Your task to perform on an android device: Is it going to rain tomorrow? Image 0: 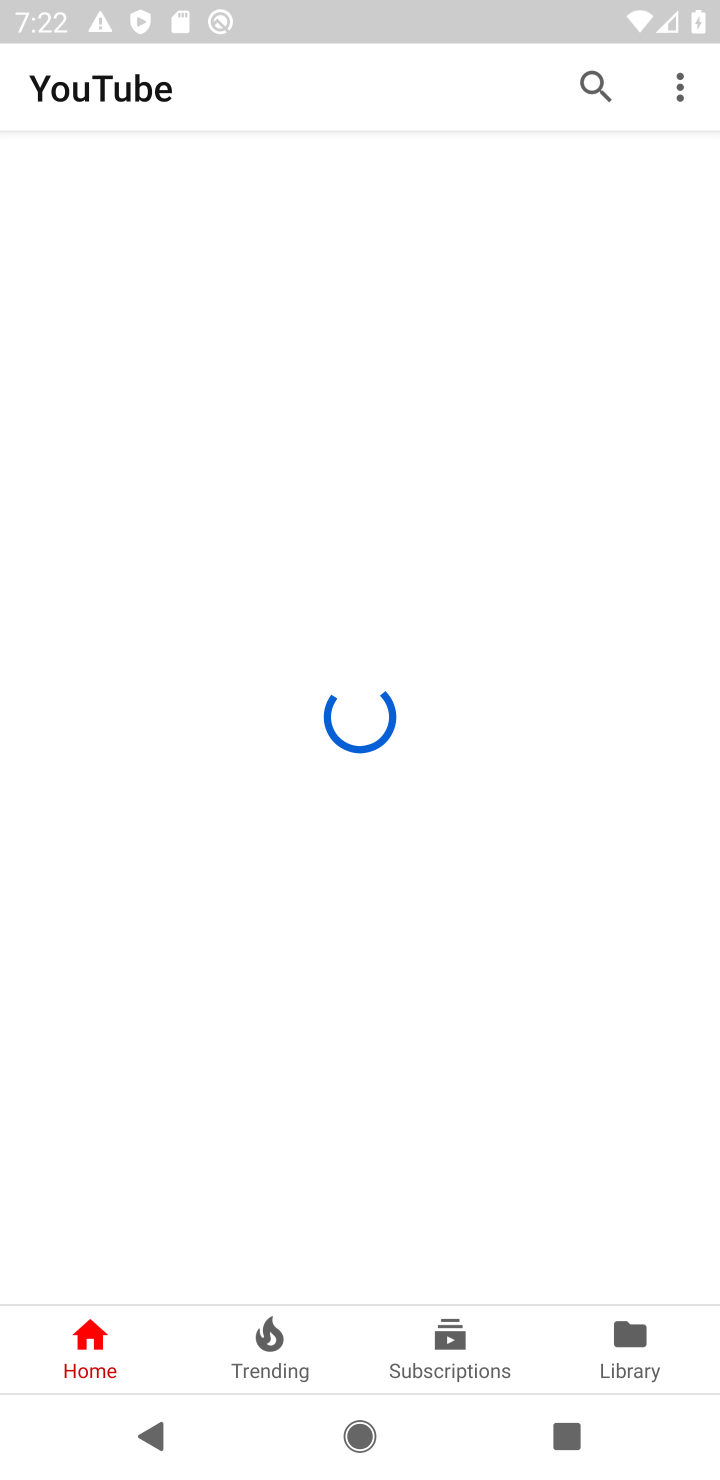
Step 0: press home button
Your task to perform on an android device: Is it going to rain tomorrow? Image 1: 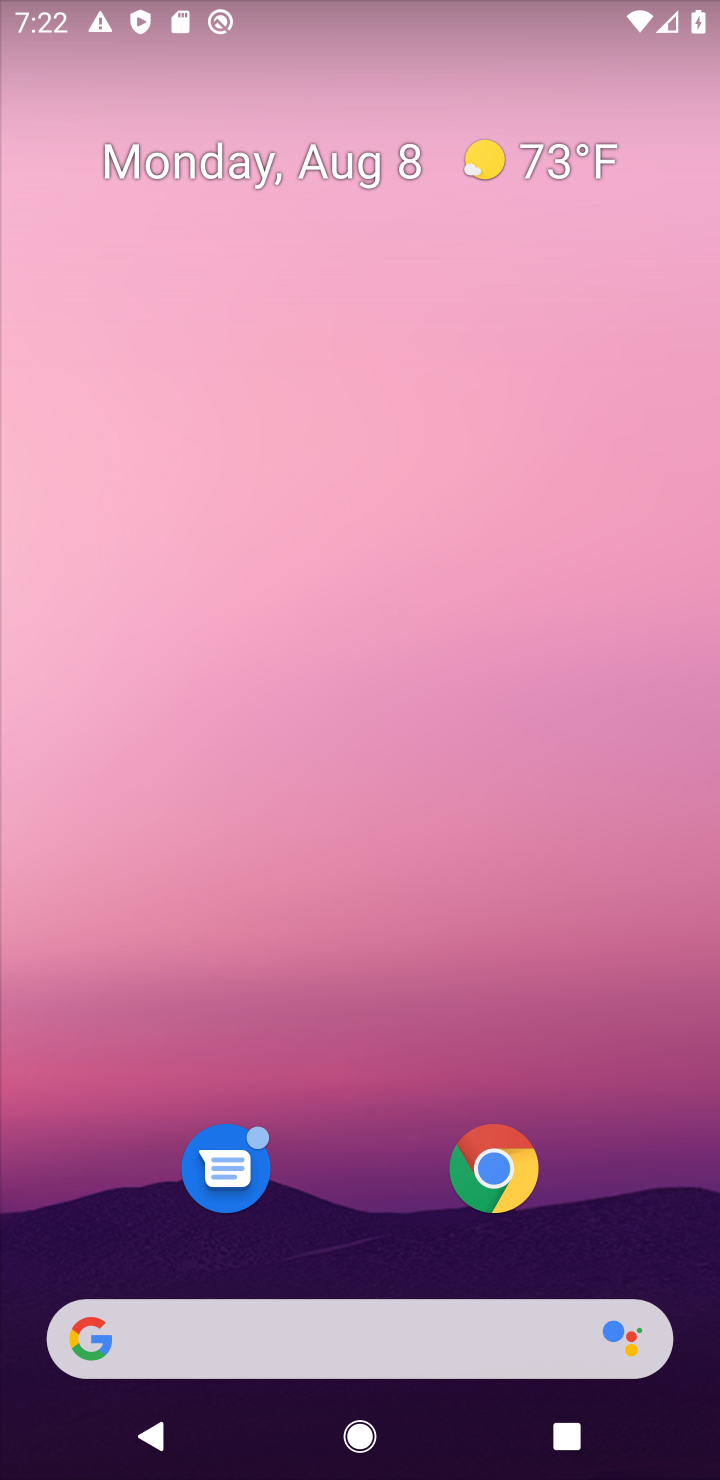
Step 1: click (227, 1327)
Your task to perform on an android device: Is it going to rain tomorrow? Image 2: 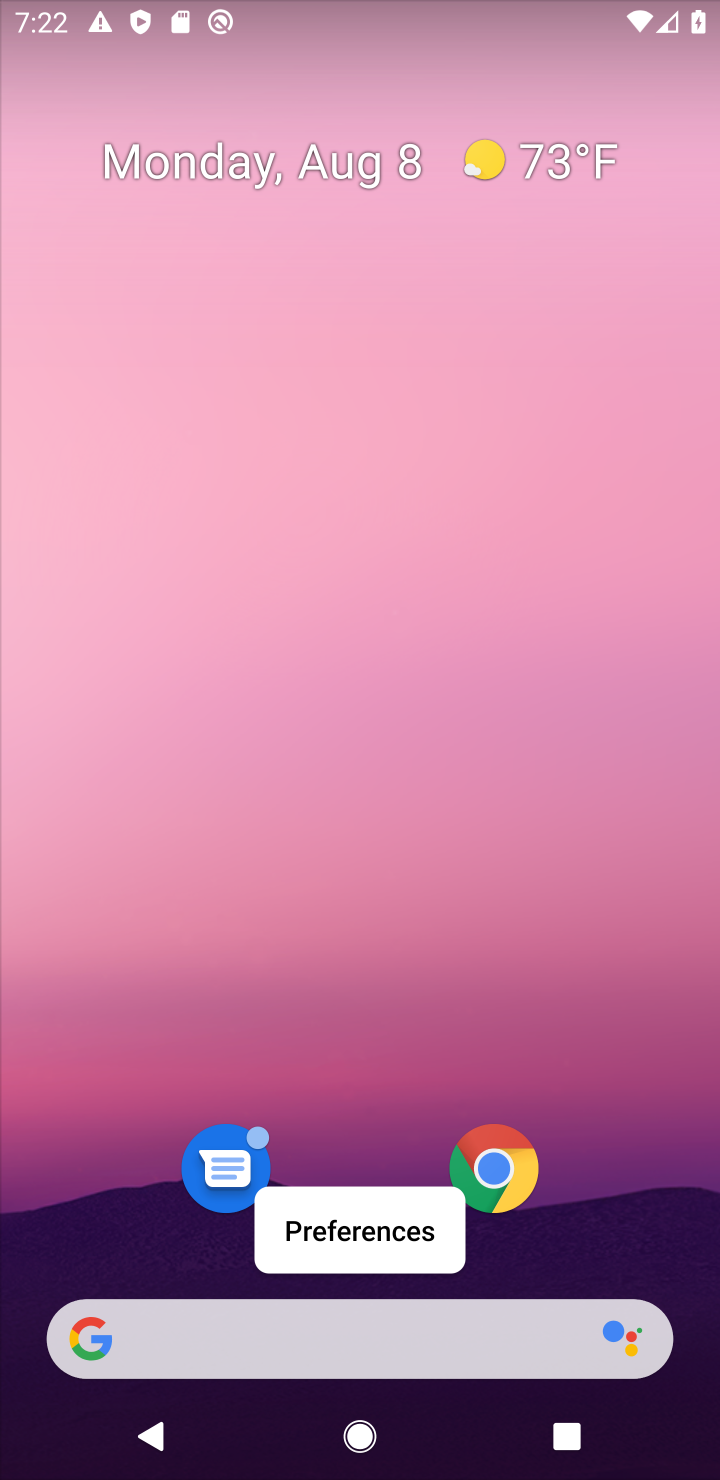
Step 2: click (242, 1327)
Your task to perform on an android device: Is it going to rain tomorrow? Image 3: 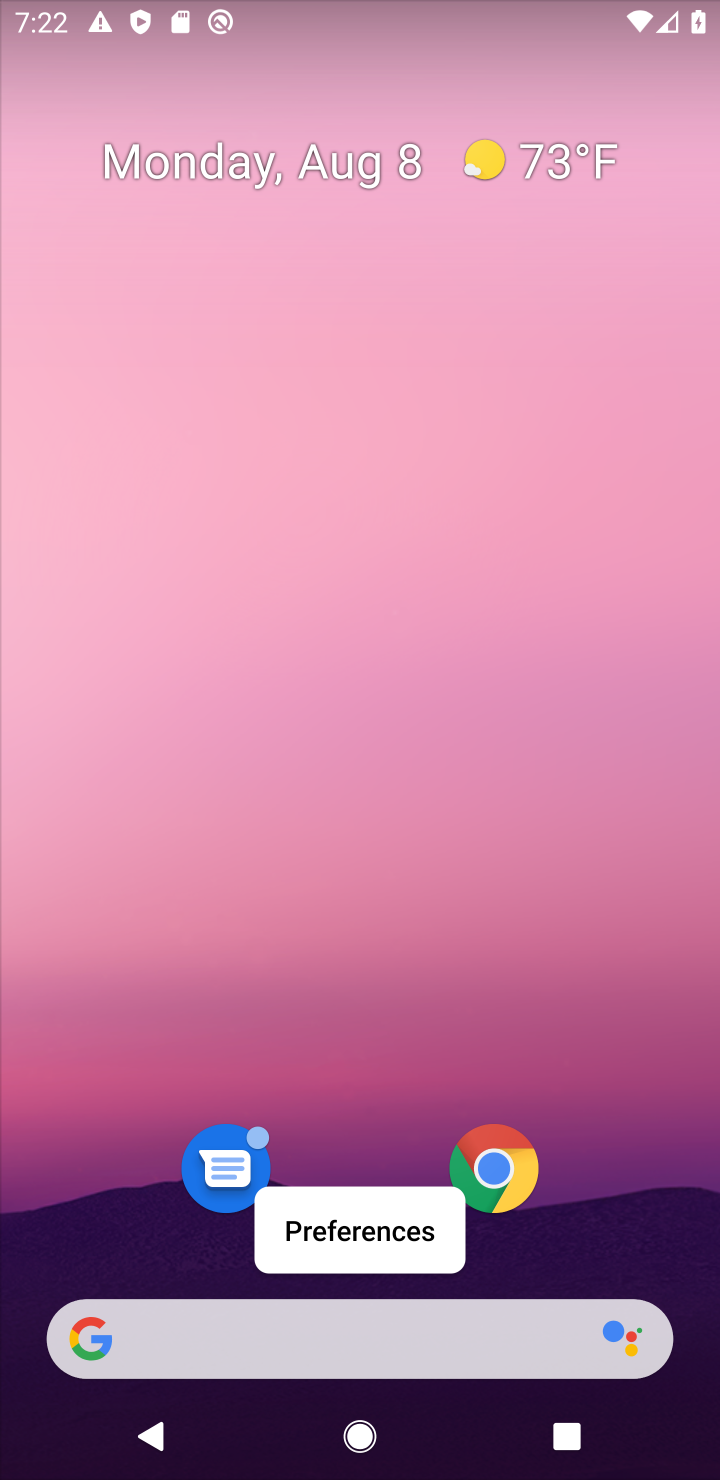
Step 3: click (240, 1334)
Your task to perform on an android device: Is it going to rain tomorrow? Image 4: 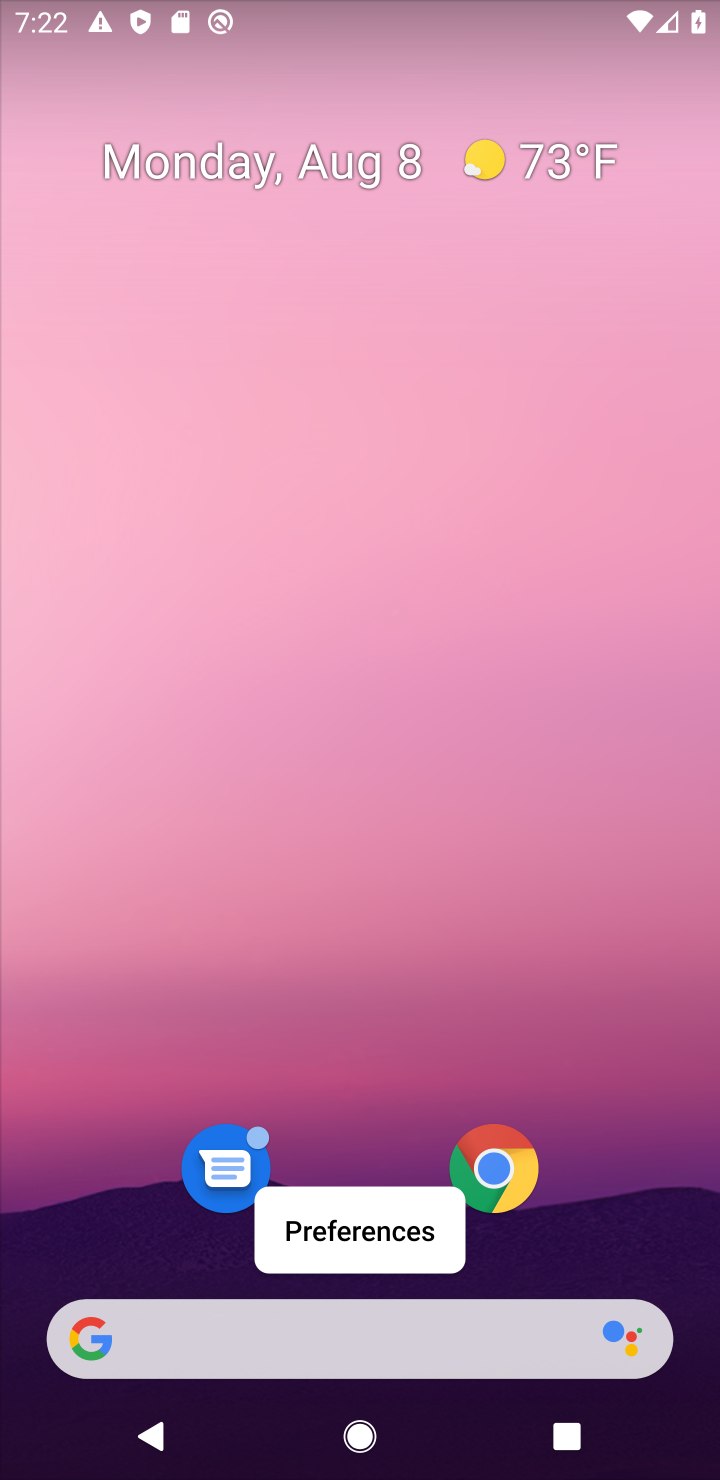
Step 4: click (220, 1317)
Your task to perform on an android device: Is it going to rain tomorrow? Image 5: 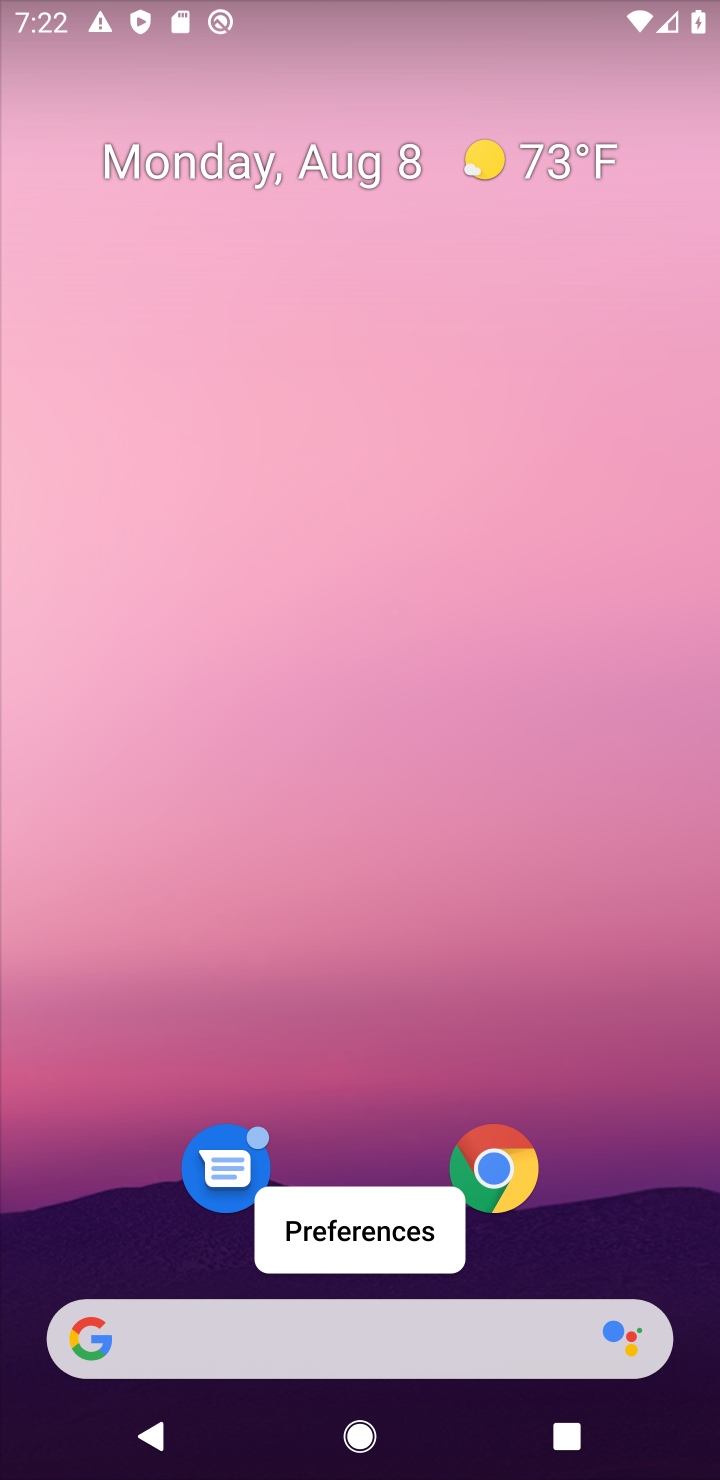
Step 5: click (268, 1346)
Your task to perform on an android device: Is it going to rain tomorrow? Image 6: 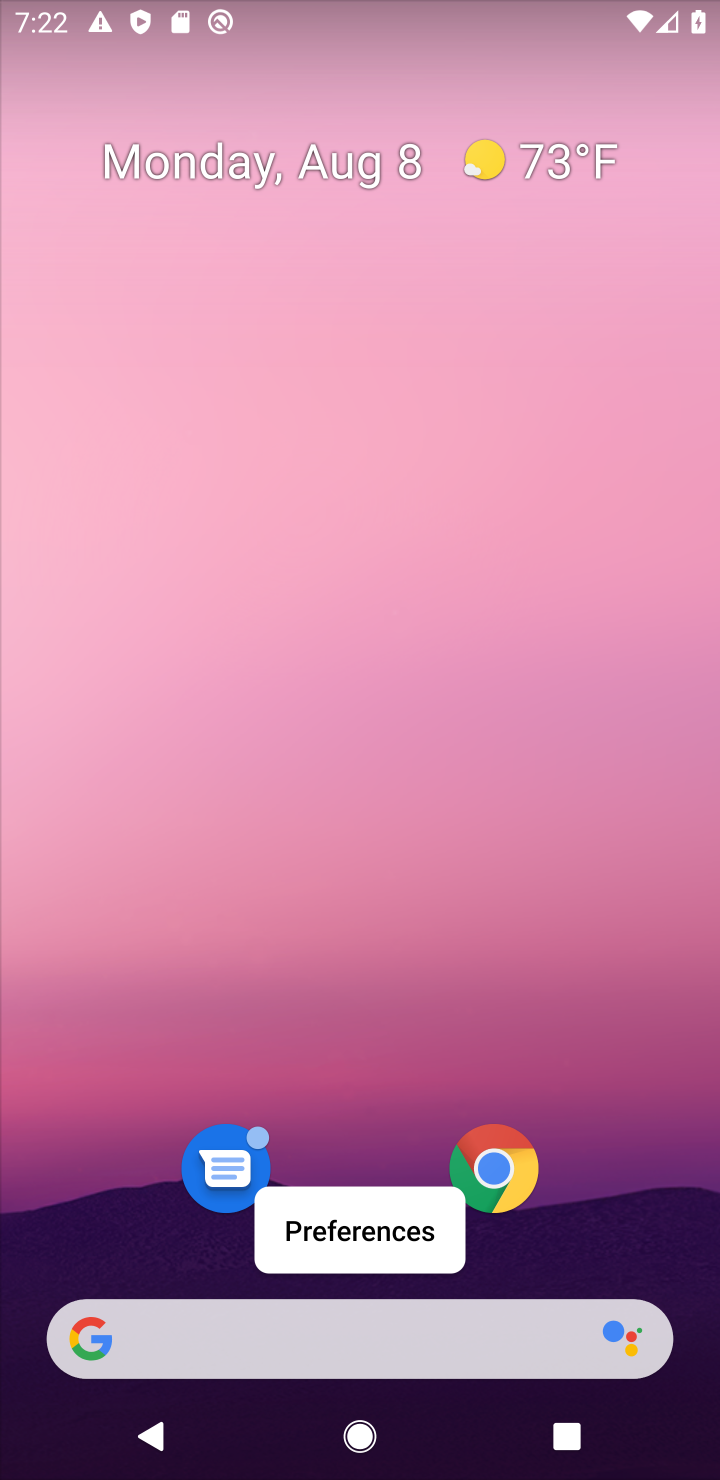
Step 6: click (323, 1343)
Your task to perform on an android device: Is it going to rain tomorrow? Image 7: 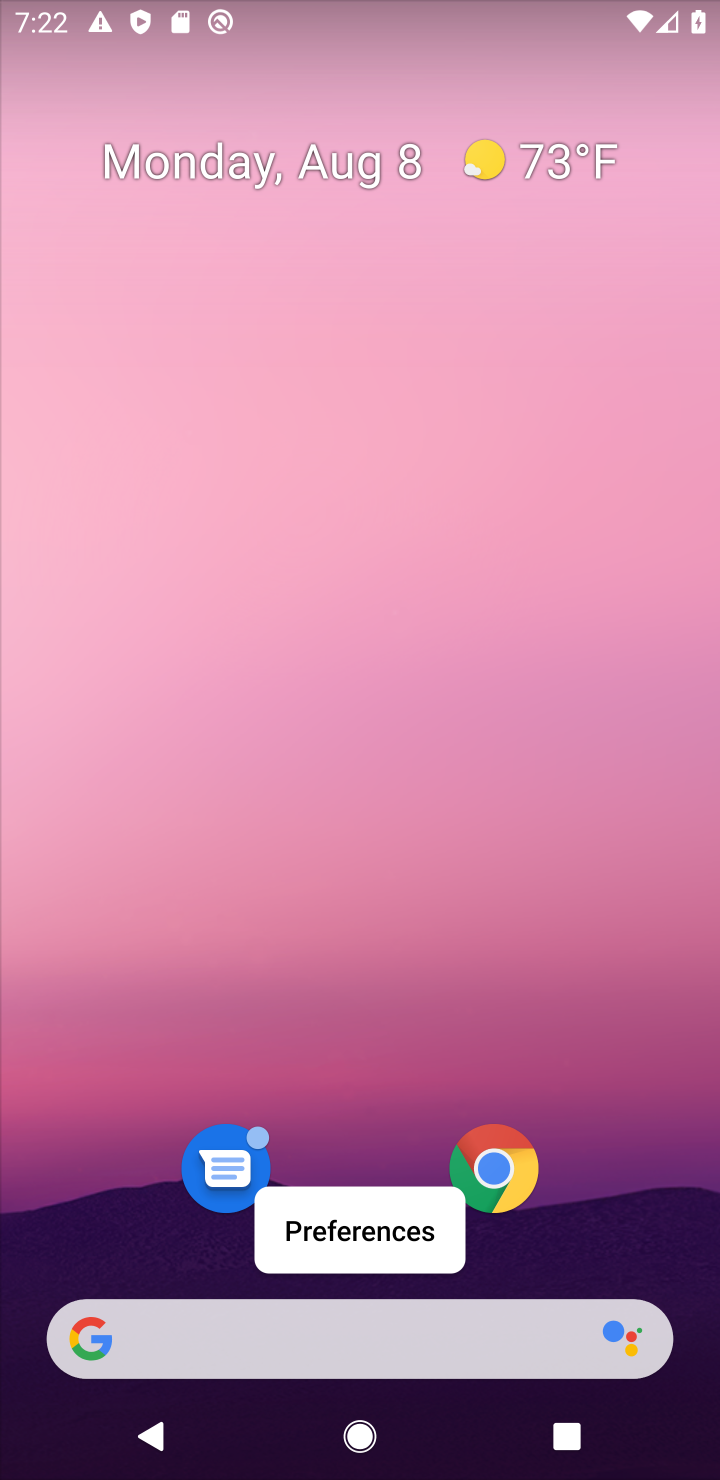
Step 7: click (210, 1340)
Your task to perform on an android device: Is it going to rain tomorrow? Image 8: 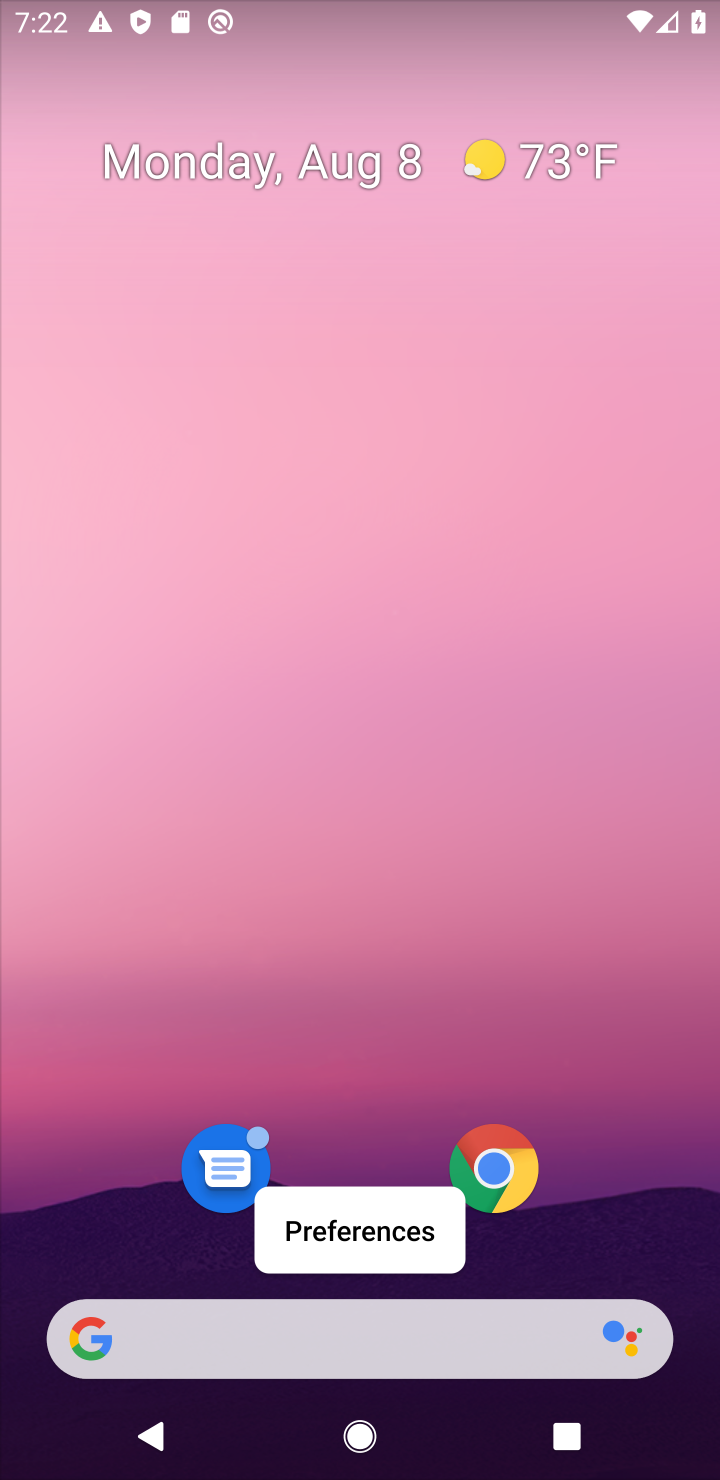
Step 8: click (210, 1340)
Your task to perform on an android device: Is it going to rain tomorrow? Image 9: 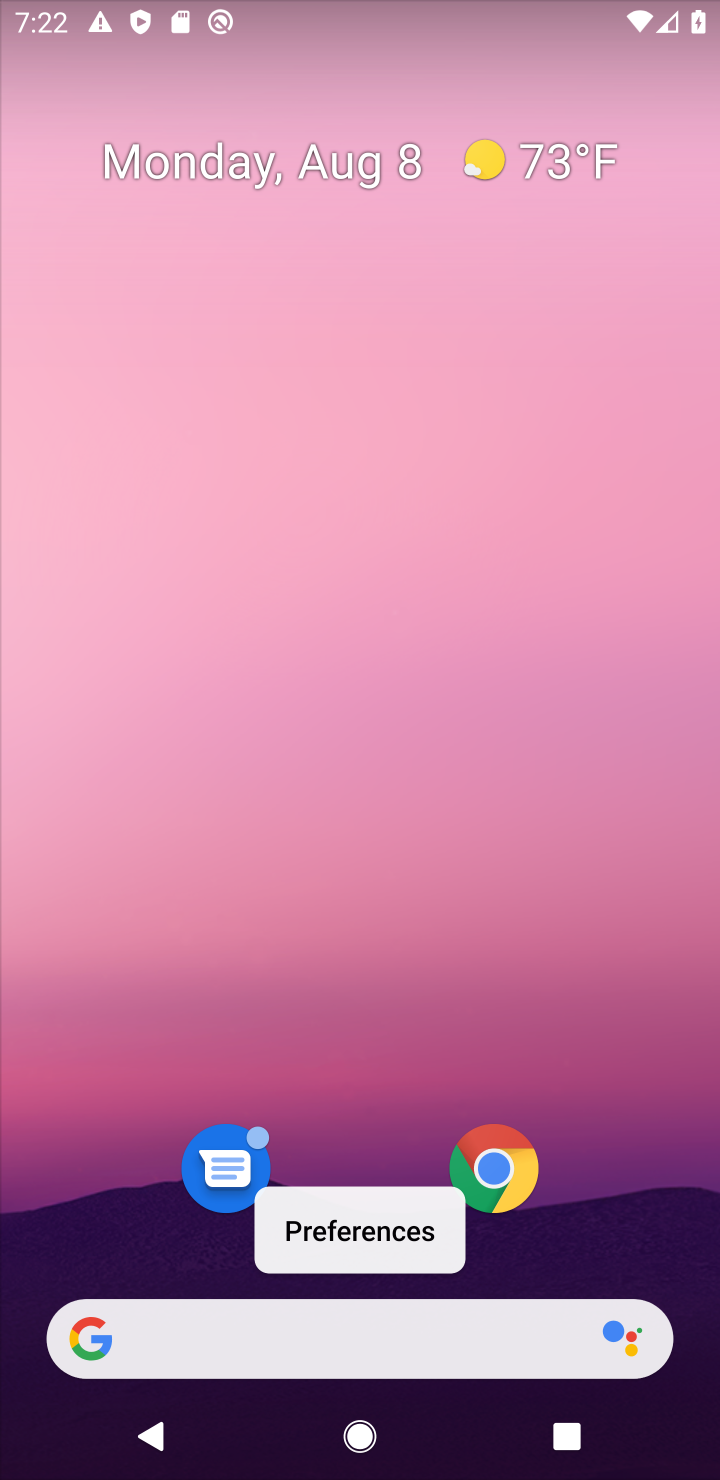
Step 9: click (256, 1341)
Your task to perform on an android device: Is it going to rain tomorrow? Image 10: 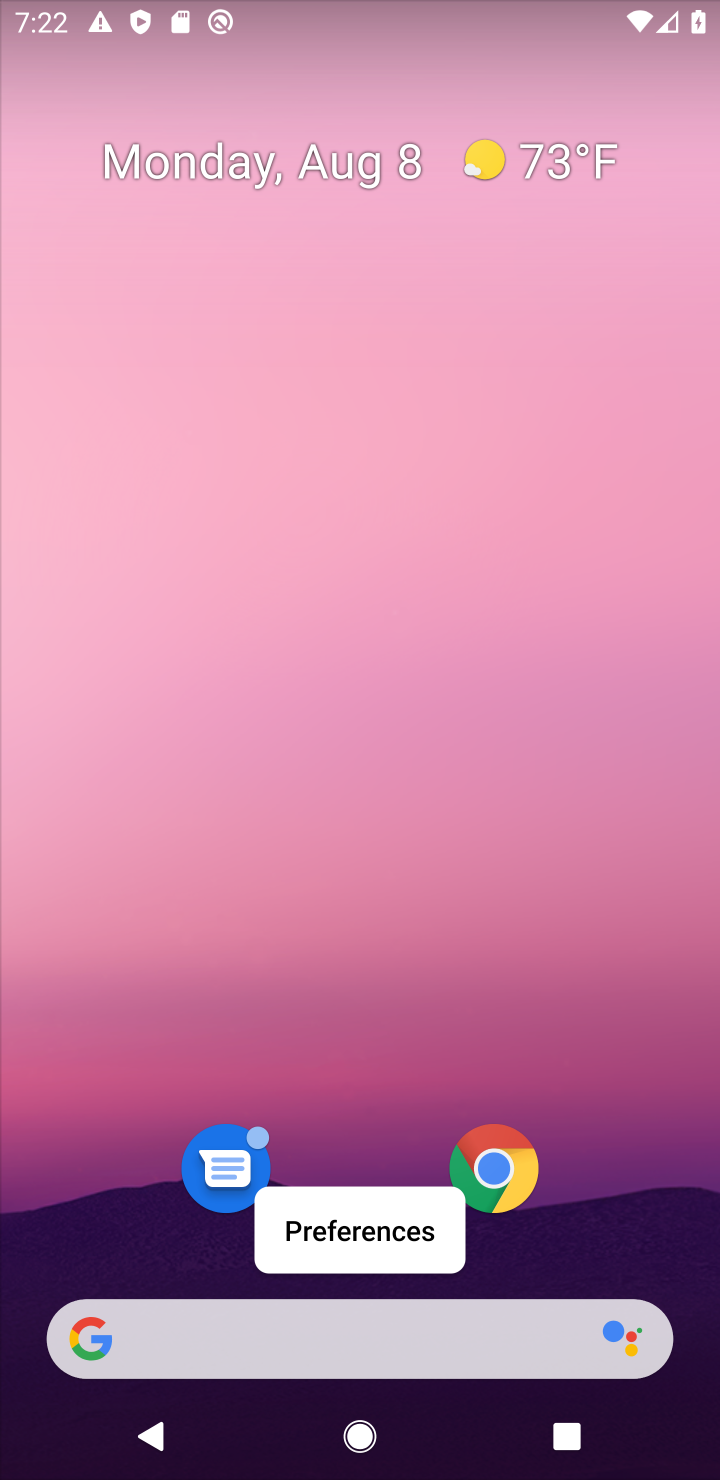
Step 10: click (256, 1341)
Your task to perform on an android device: Is it going to rain tomorrow? Image 11: 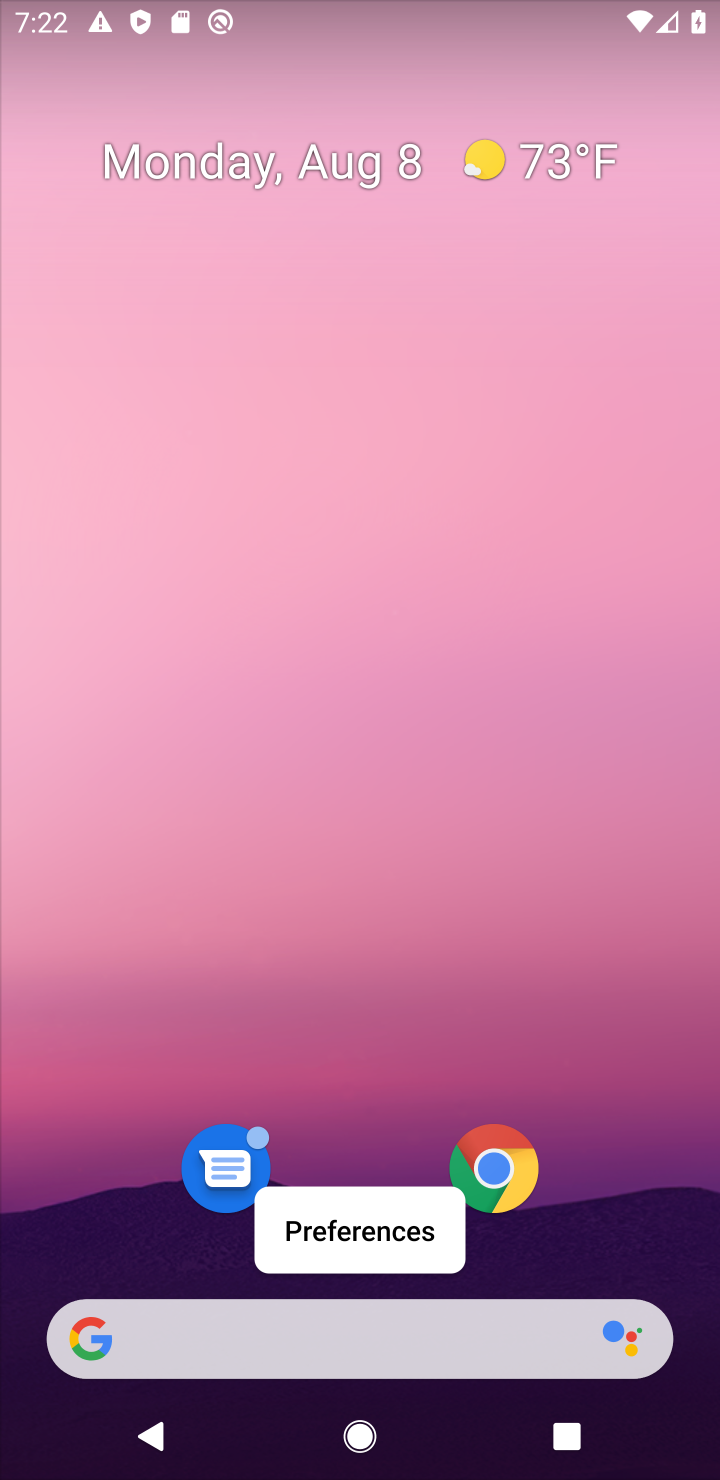
Step 11: click (362, 1325)
Your task to perform on an android device: Is it going to rain tomorrow? Image 12: 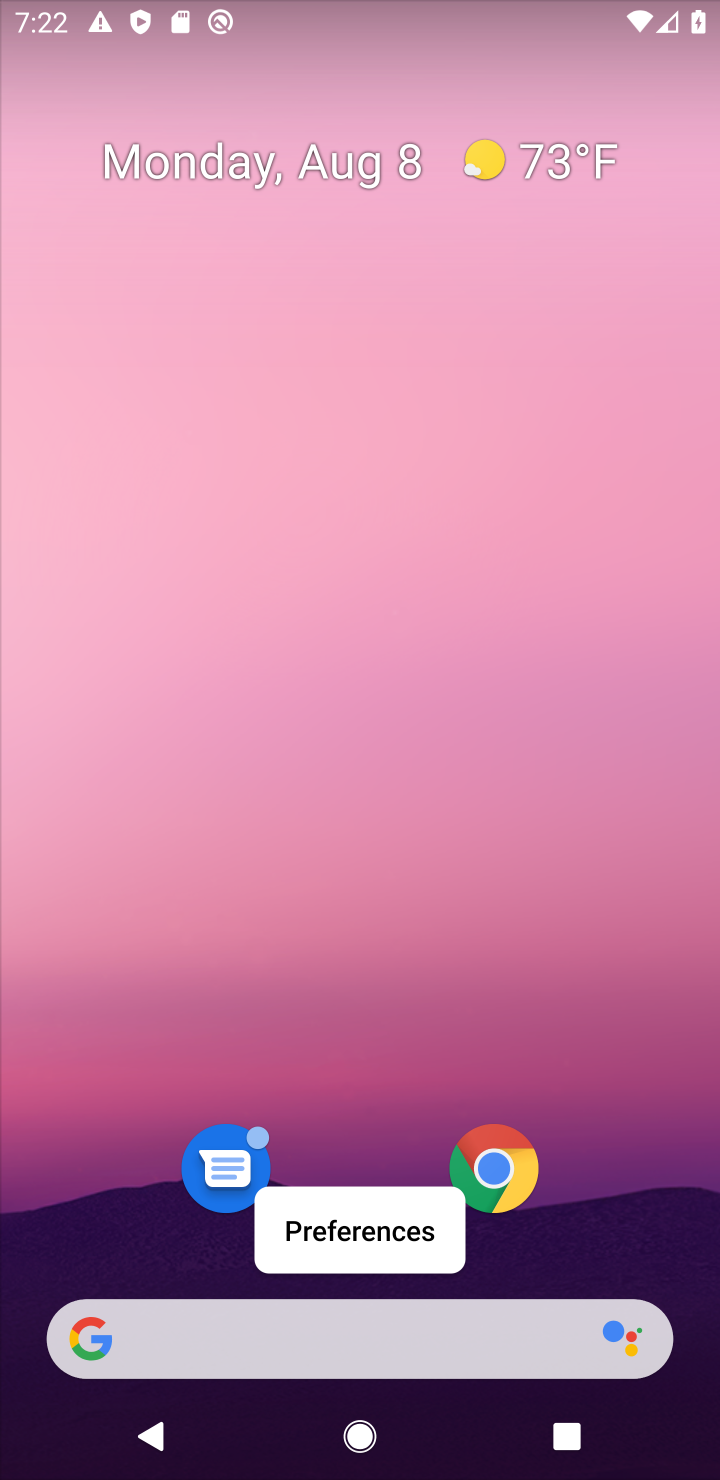
Step 12: click (484, 1335)
Your task to perform on an android device: Is it going to rain tomorrow? Image 13: 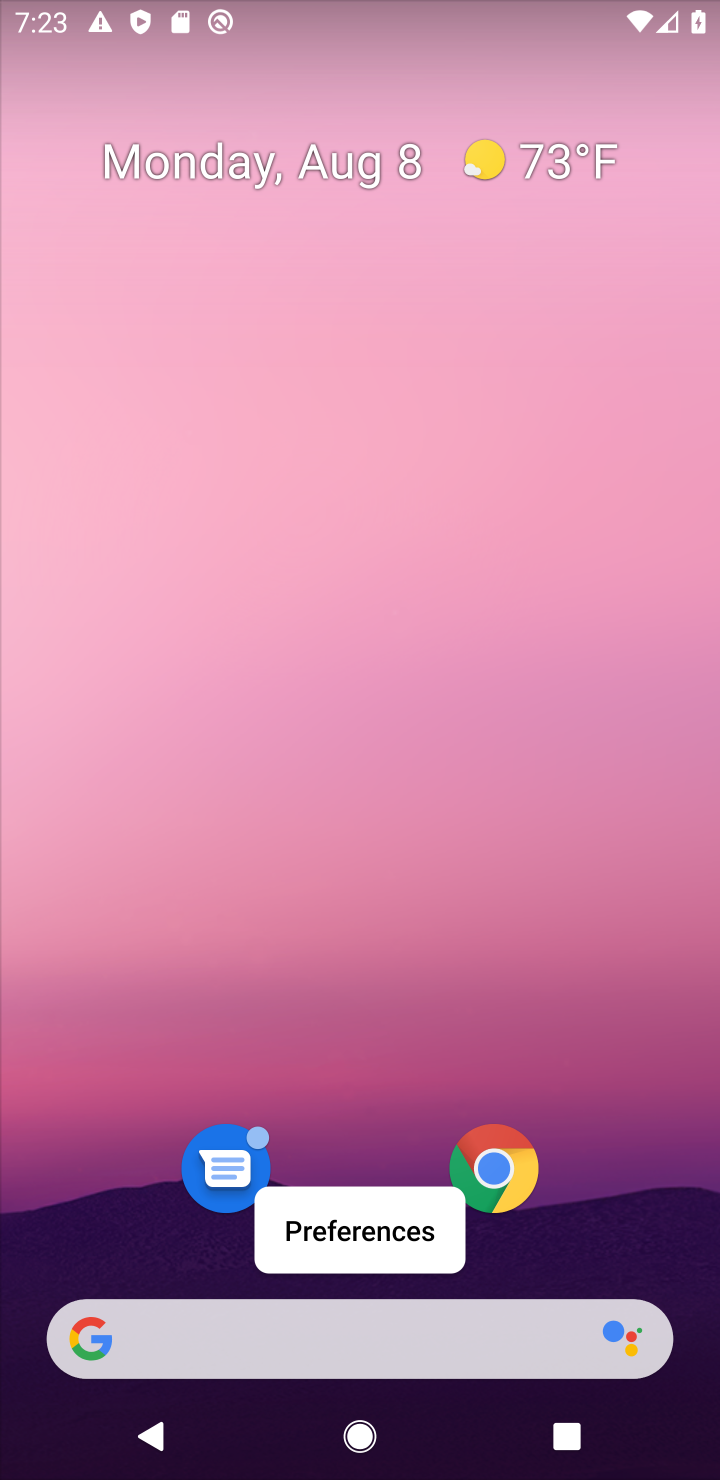
Step 13: click (123, 1326)
Your task to perform on an android device: Is it going to rain tomorrow? Image 14: 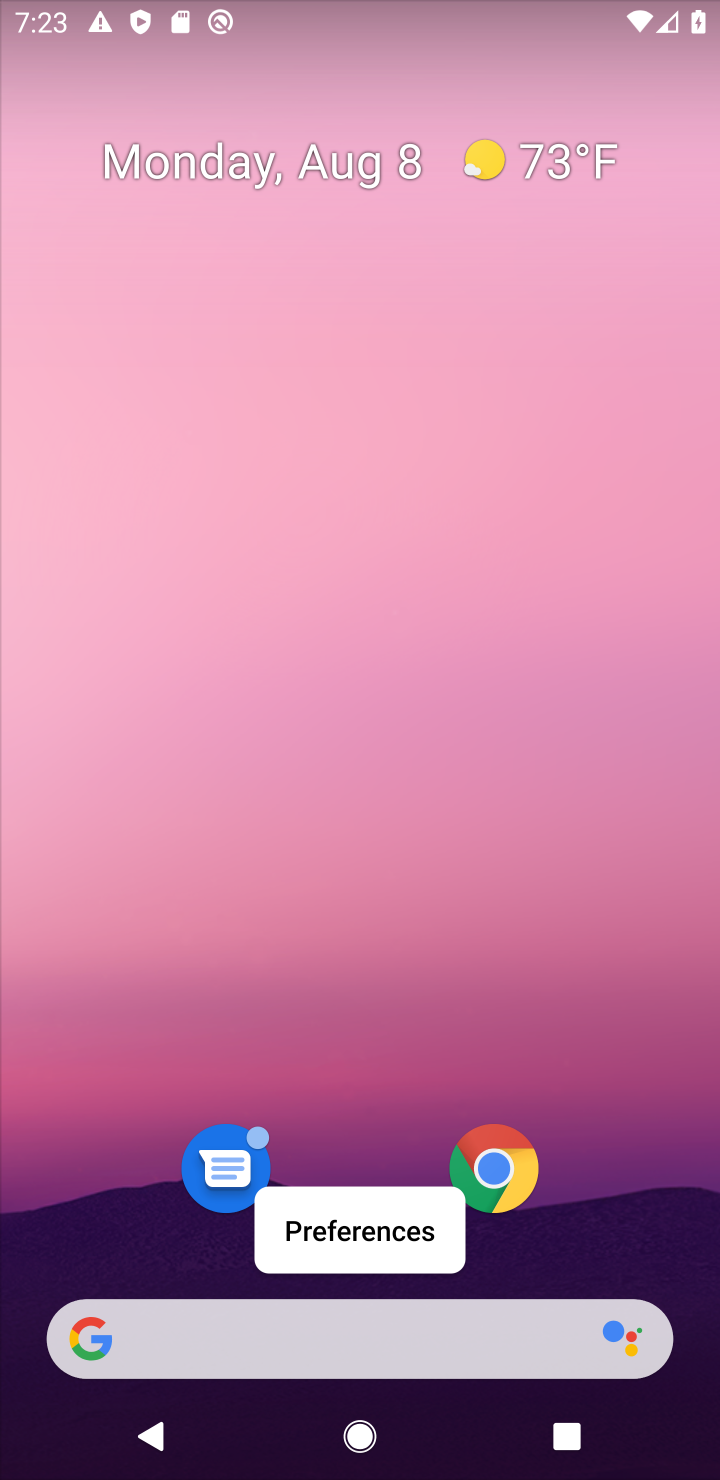
Step 14: click (123, 1326)
Your task to perform on an android device: Is it going to rain tomorrow? Image 15: 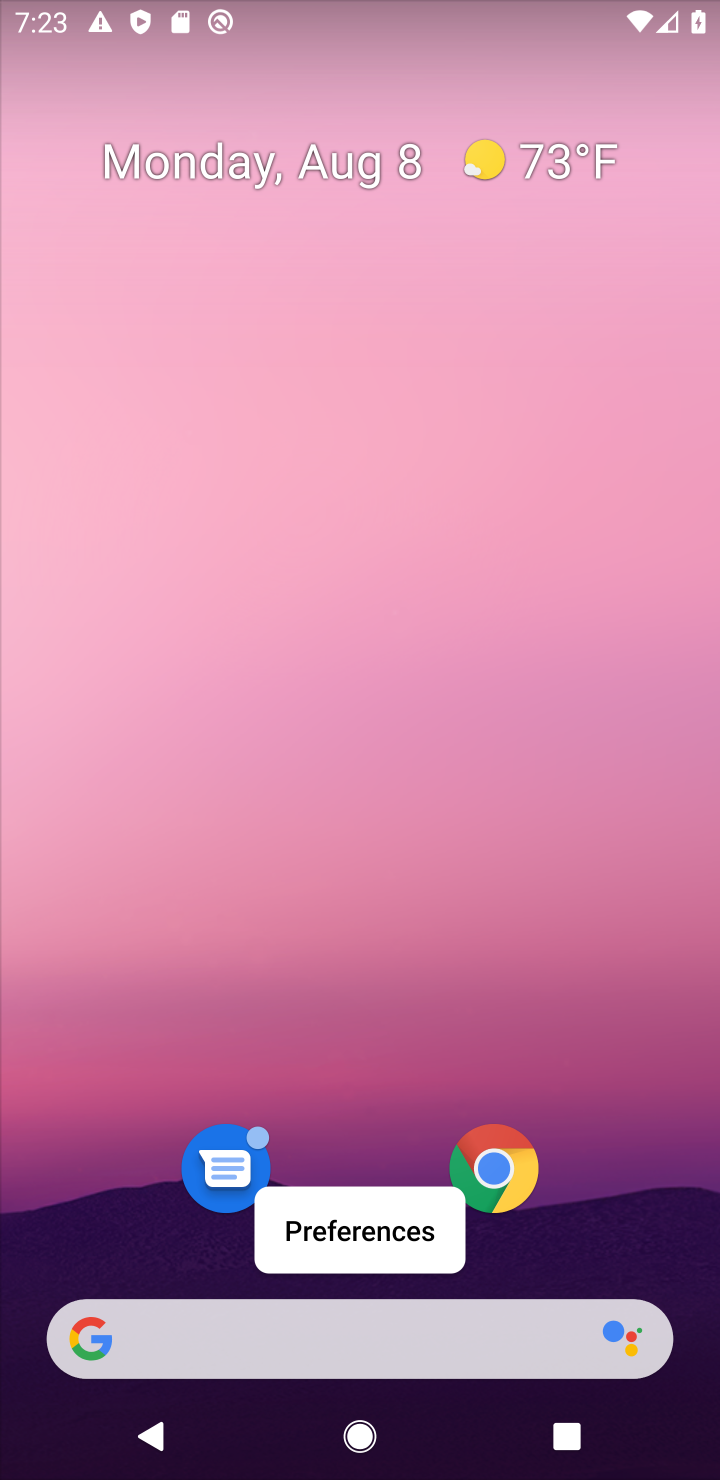
Step 15: click (443, 683)
Your task to perform on an android device: Is it going to rain tomorrow? Image 16: 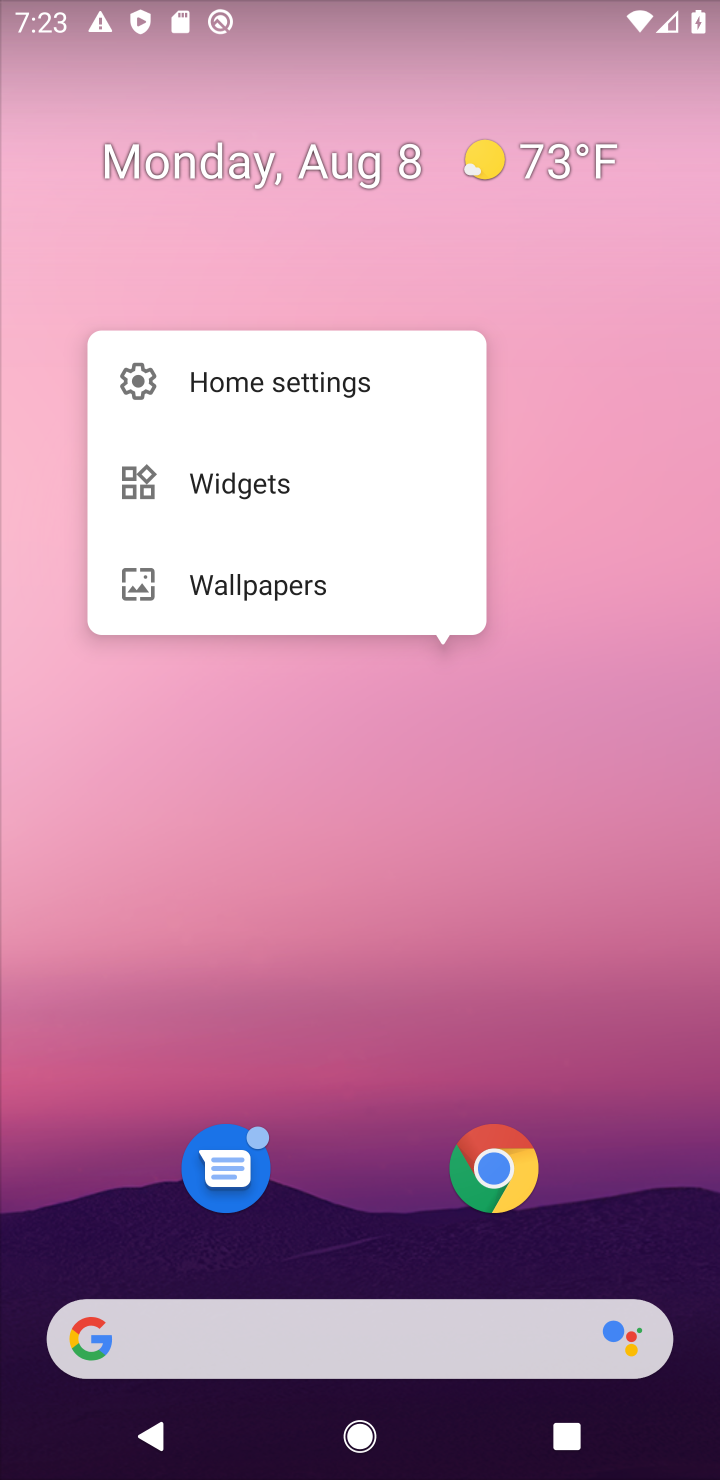
Step 16: click (154, 1327)
Your task to perform on an android device: Is it going to rain tomorrow? Image 17: 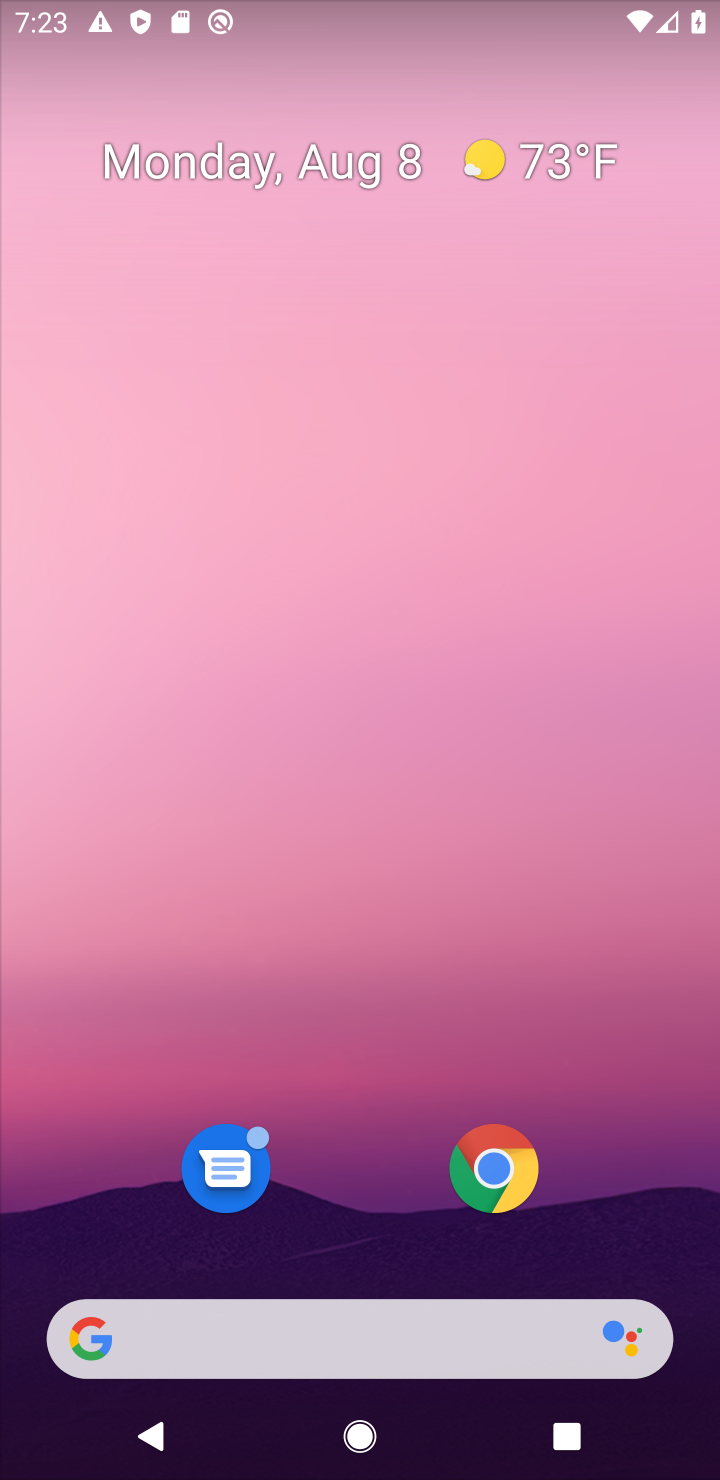
Step 17: click (158, 1341)
Your task to perform on an android device: Is it going to rain tomorrow? Image 18: 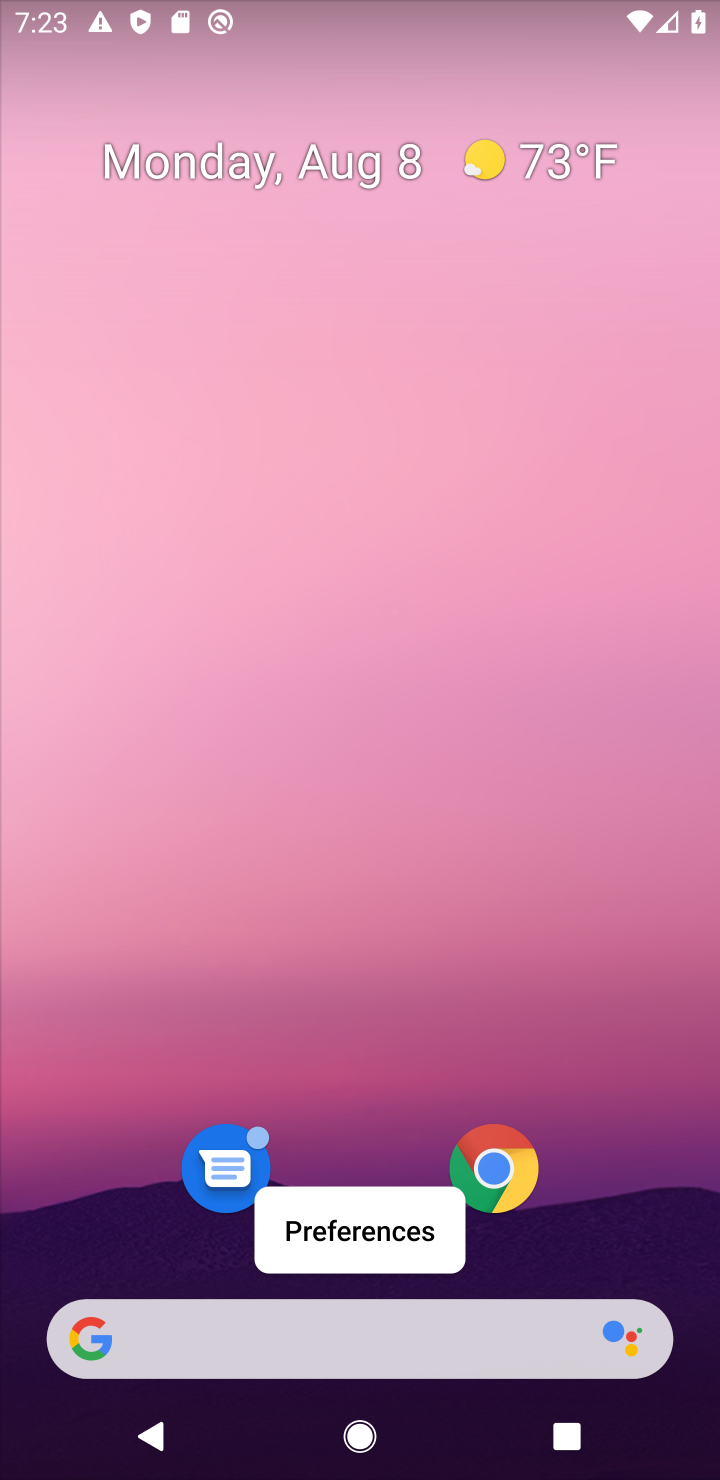
Step 18: click (104, 1341)
Your task to perform on an android device: Is it going to rain tomorrow? Image 19: 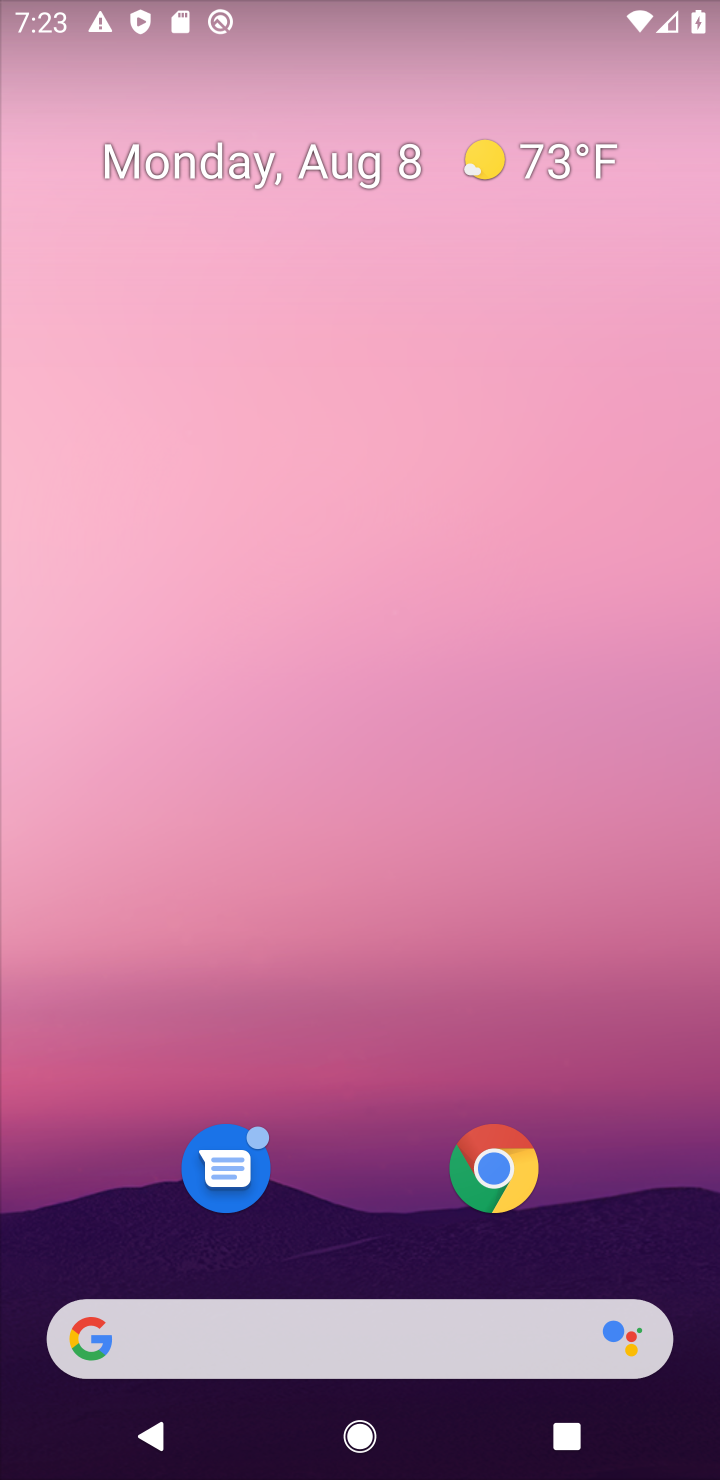
Step 19: click (95, 1339)
Your task to perform on an android device: Is it going to rain tomorrow? Image 20: 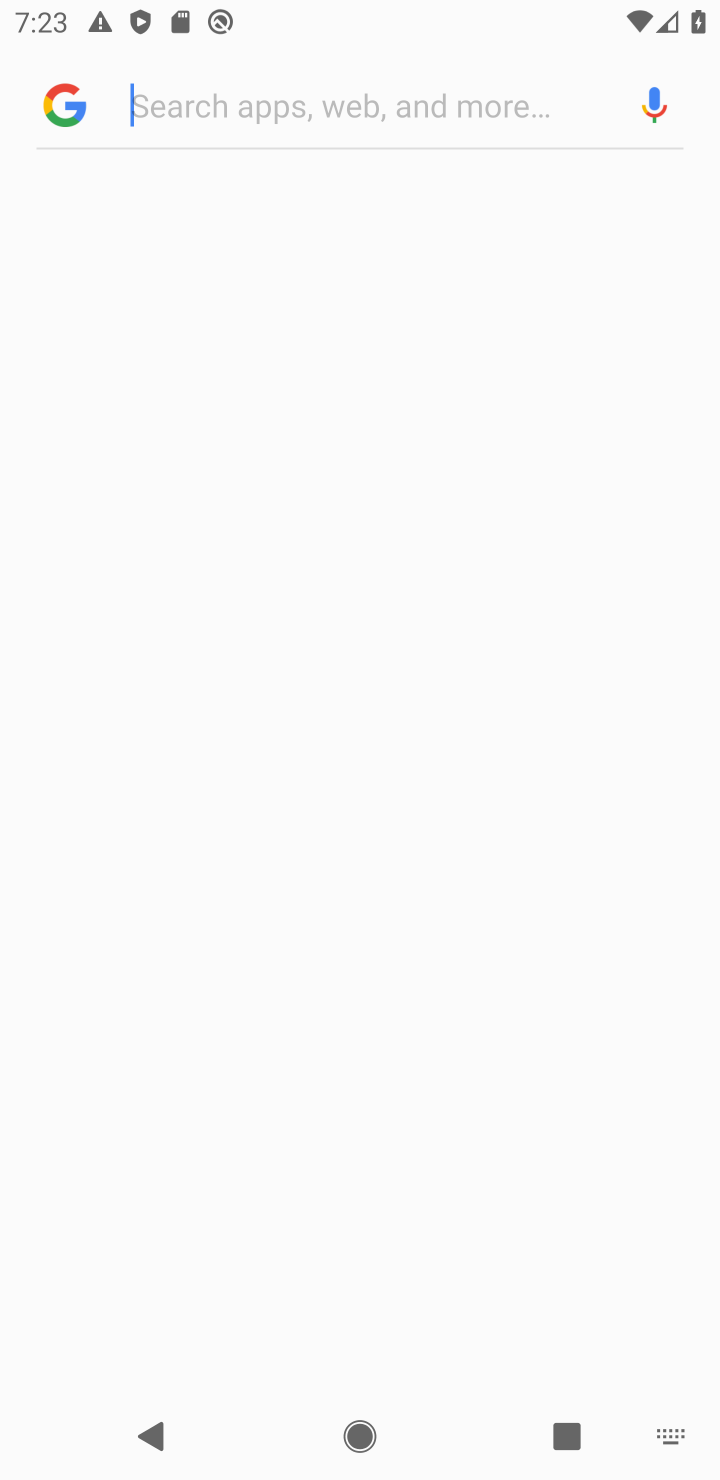
Step 20: click (164, 96)
Your task to perform on an android device: Is it going to rain tomorrow? Image 21: 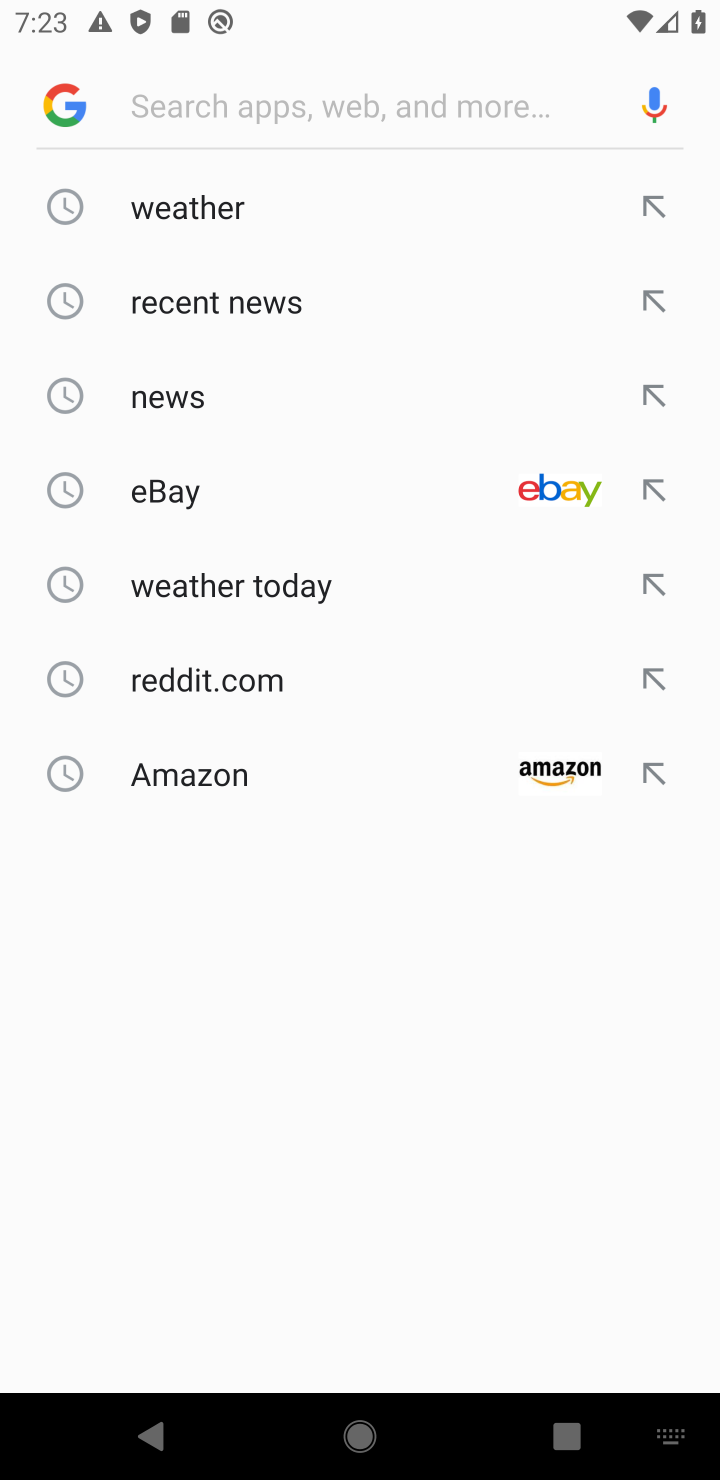
Step 21: type "Is it going to rain tomorrow"
Your task to perform on an android device: Is it going to rain tomorrow? Image 22: 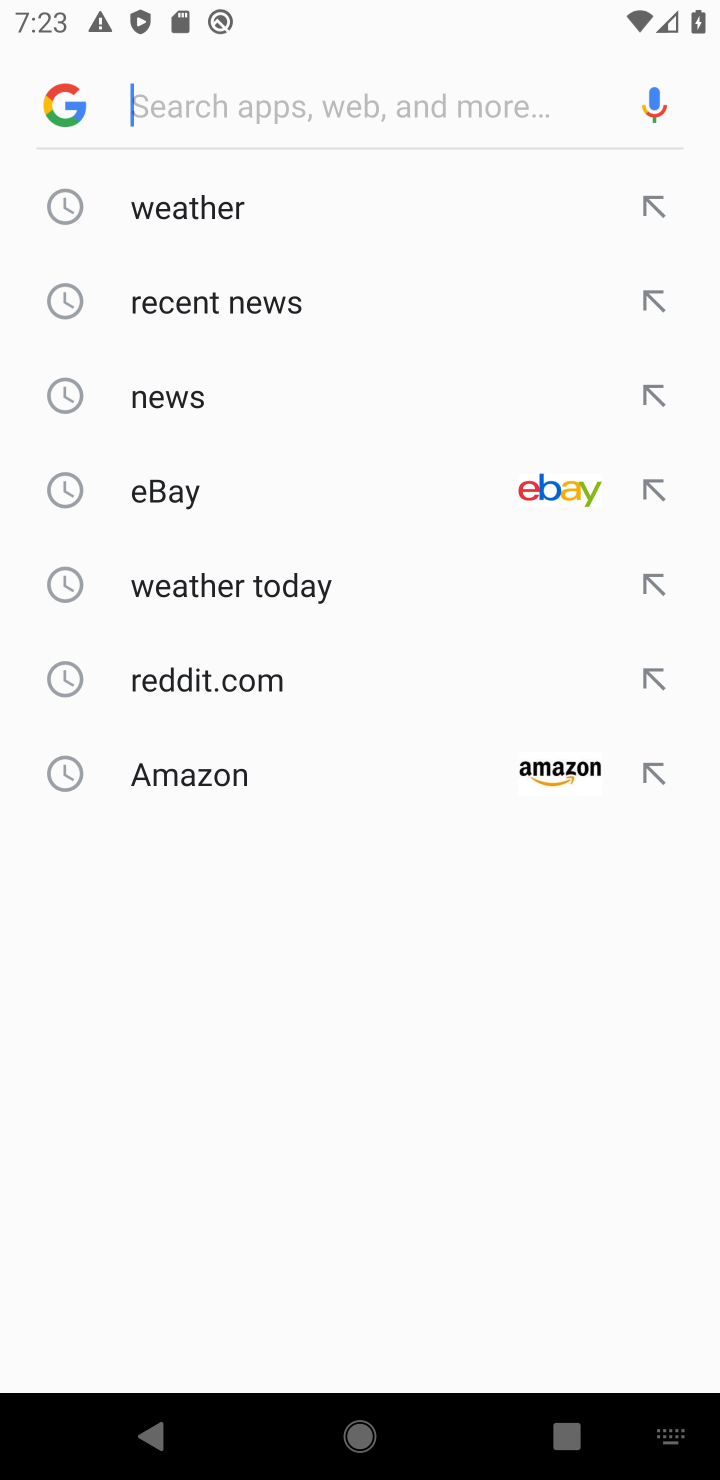
Step 22: click (175, 217)
Your task to perform on an android device: Is it going to rain tomorrow? Image 23: 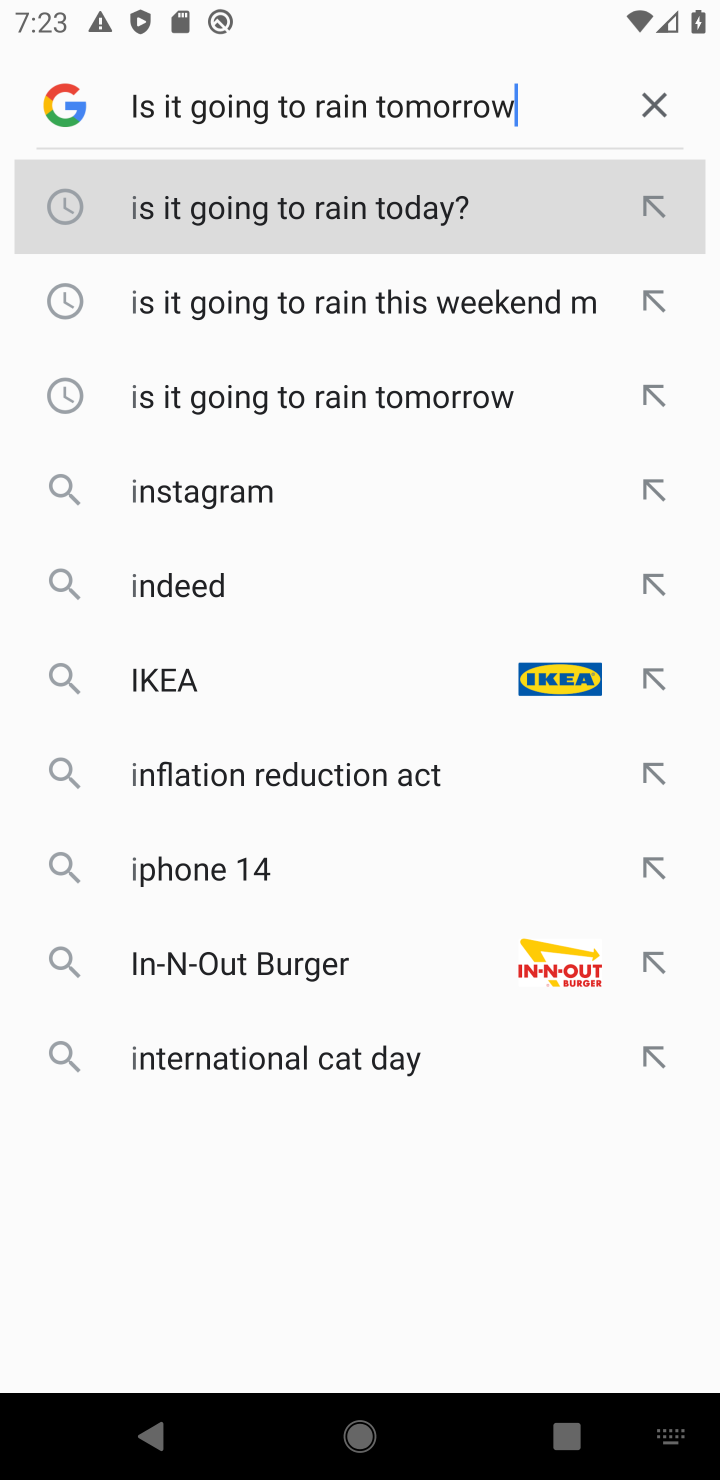
Step 23: click (201, 202)
Your task to perform on an android device: Is it going to rain tomorrow? Image 24: 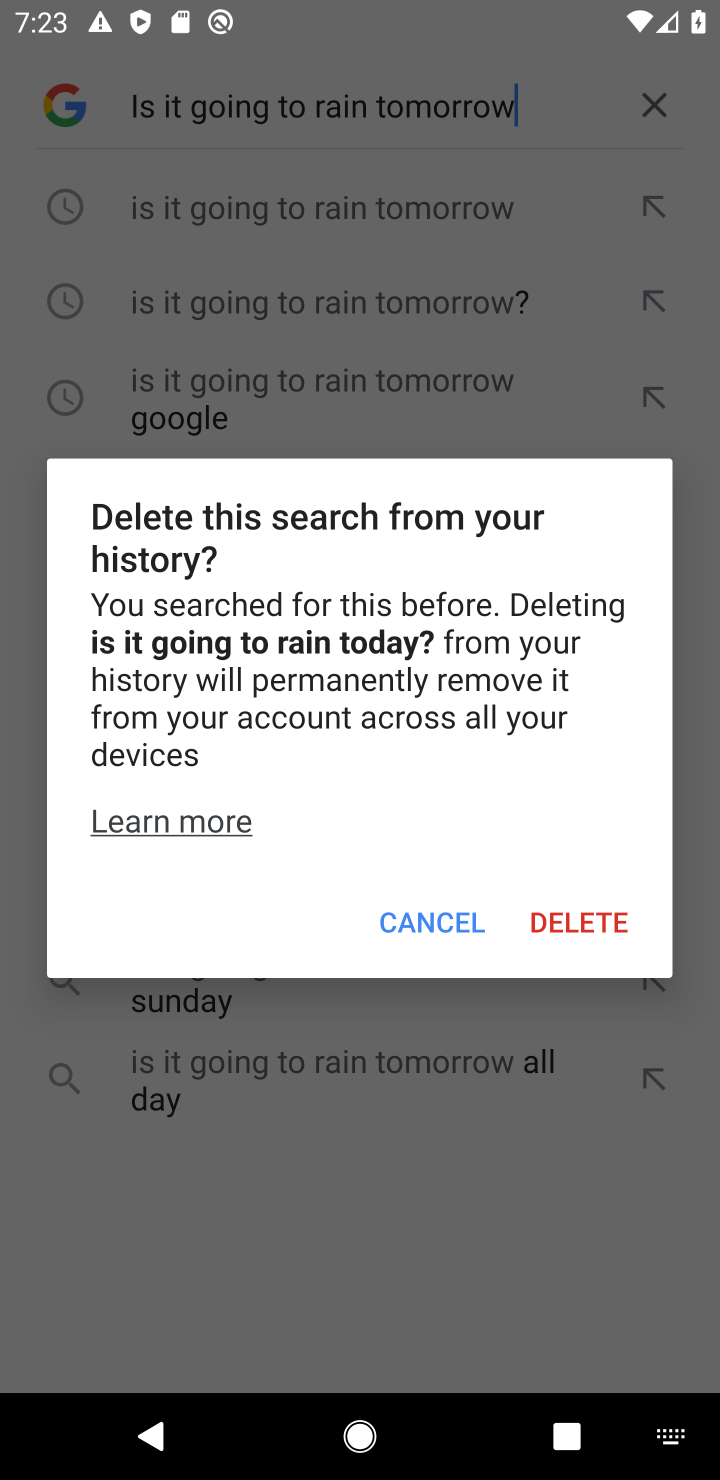
Step 24: click (401, 919)
Your task to perform on an android device: Is it going to rain tomorrow? Image 25: 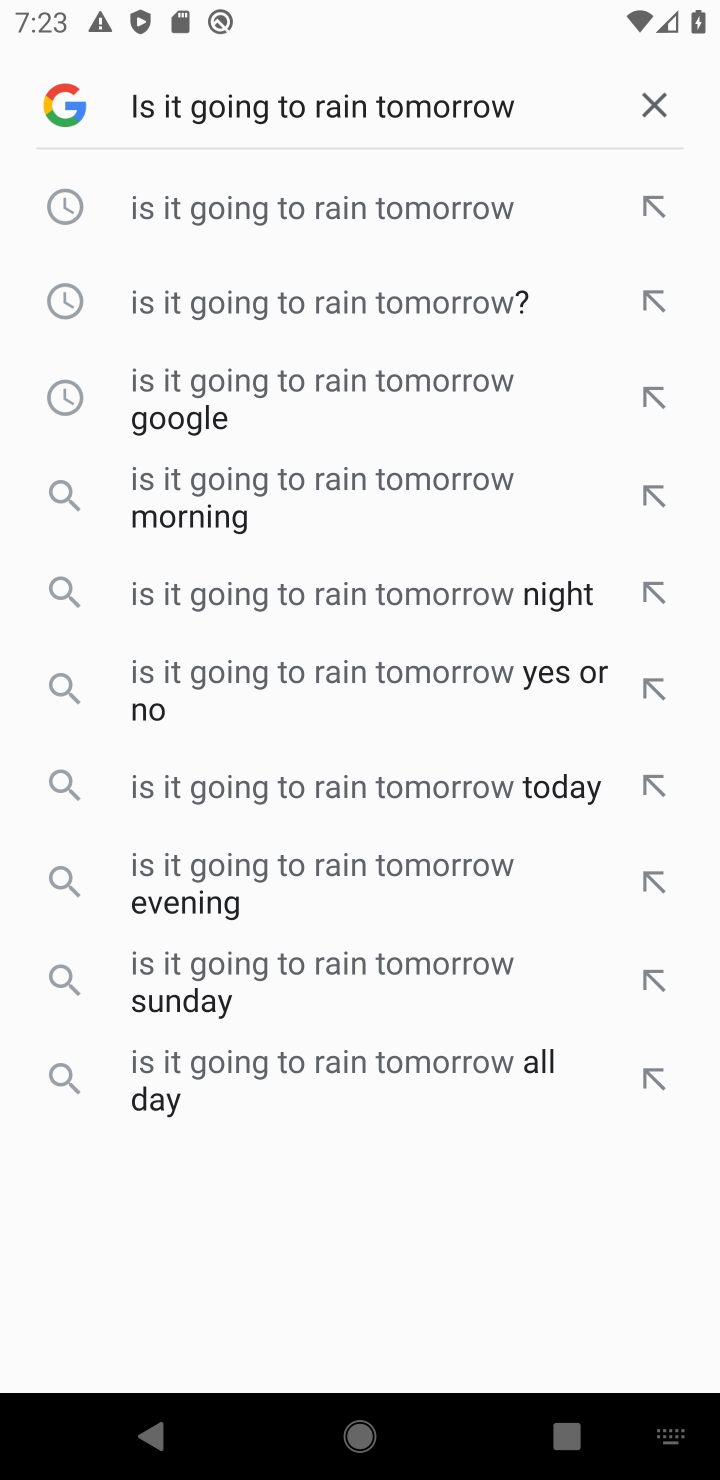
Step 25: click (342, 203)
Your task to perform on an android device: Is it going to rain tomorrow? Image 26: 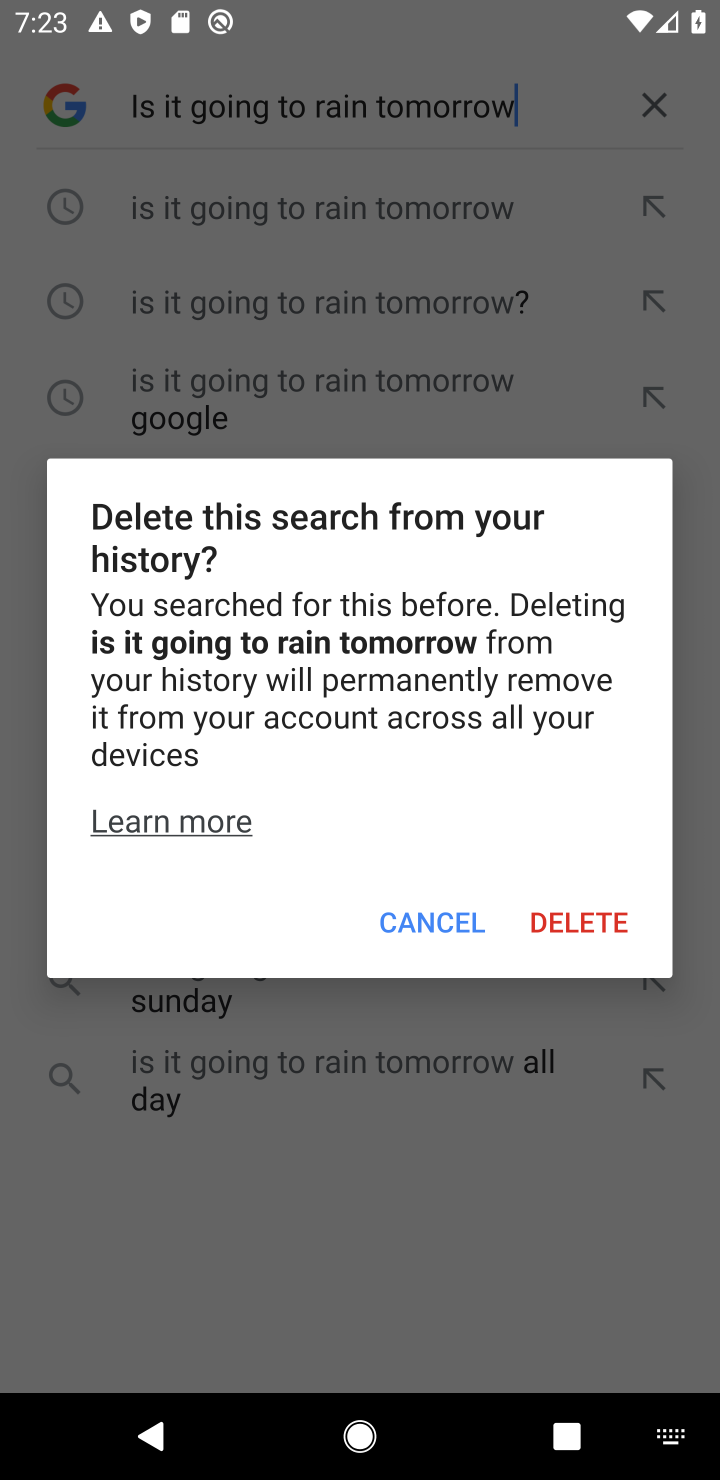
Step 26: click (451, 926)
Your task to perform on an android device: Is it going to rain tomorrow? Image 27: 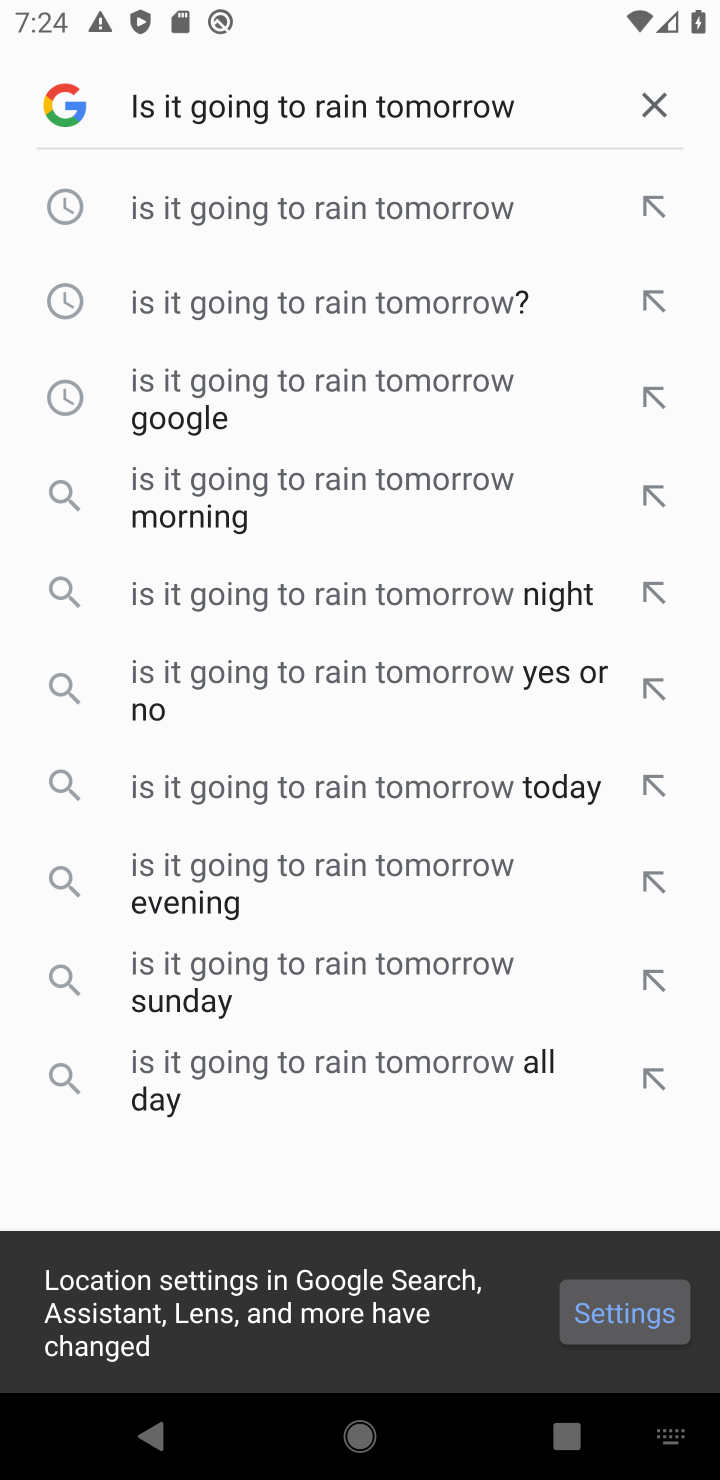
Step 27: click (458, 203)
Your task to perform on an android device: Is it going to rain tomorrow? Image 28: 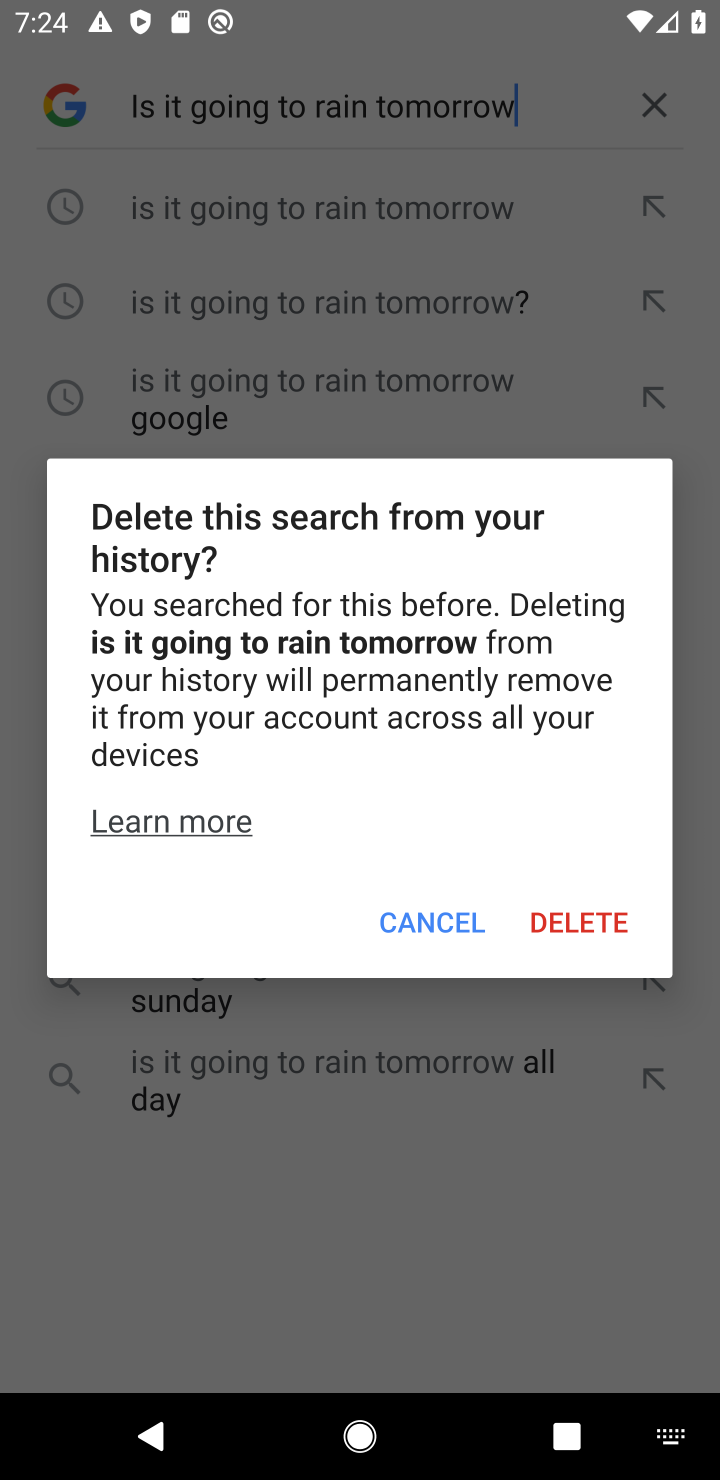
Step 28: click (429, 921)
Your task to perform on an android device: Is it going to rain tomorrow? Image 29: 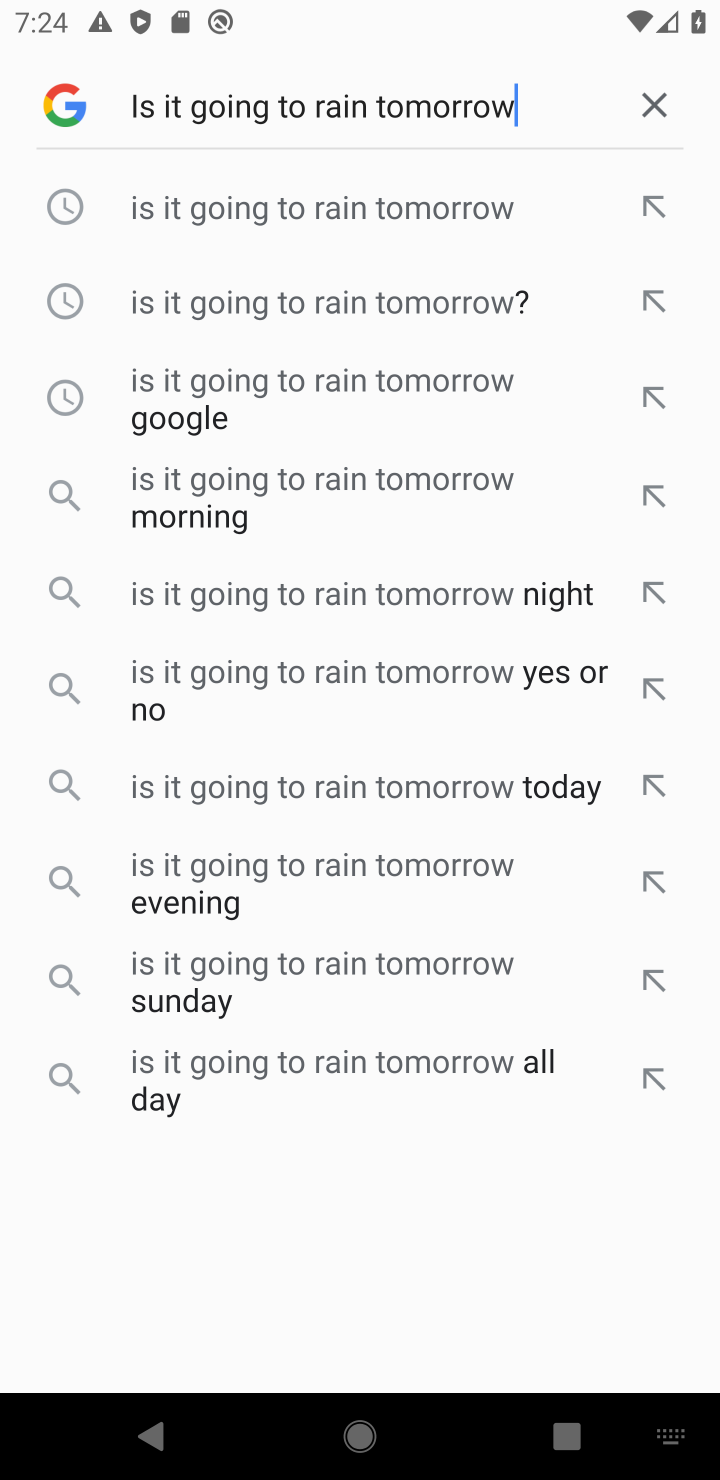
Step 29: click (182, 201)
Your task to perform on an android device: Is it going to rain tomorrow? Image 30: 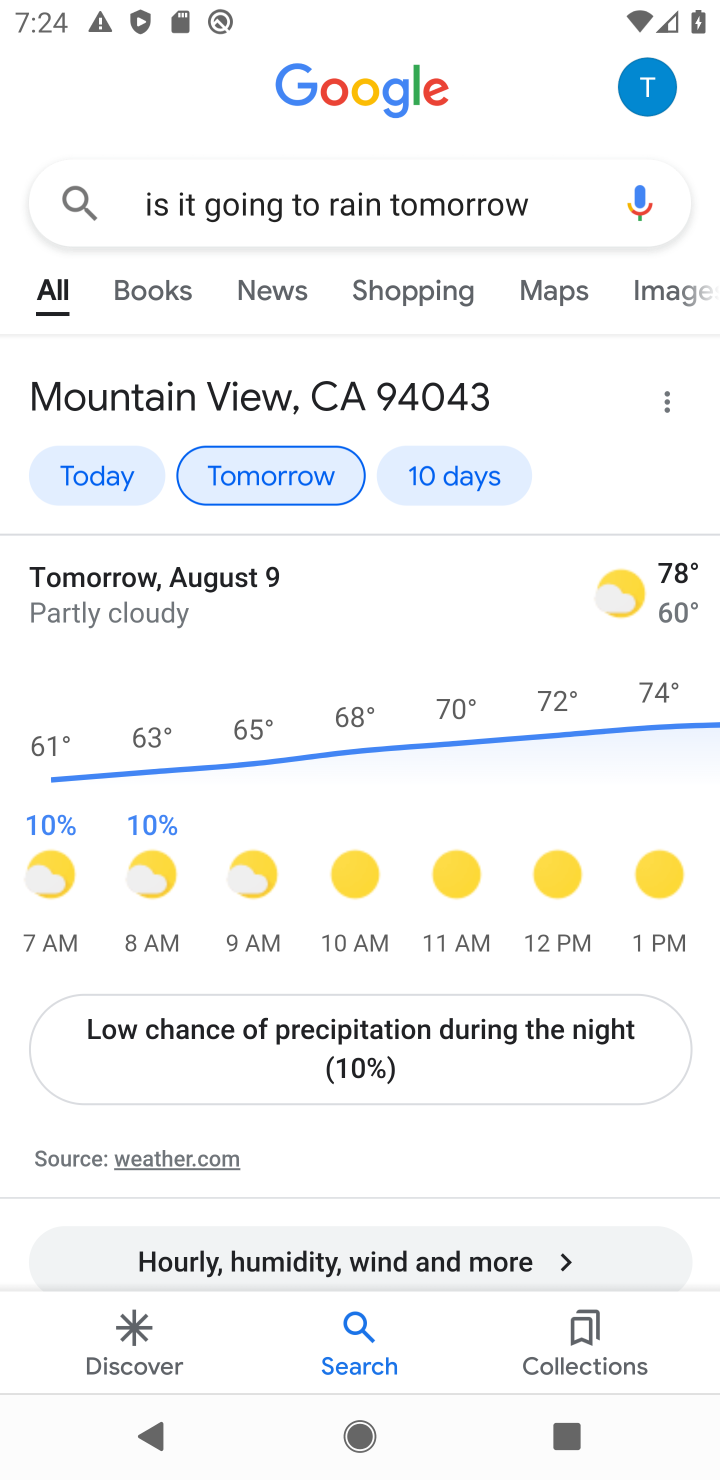
Step 30: task complete